Your task to perform on an android device: Add "razer blade" to the cart on bestbuy.com Image 0: 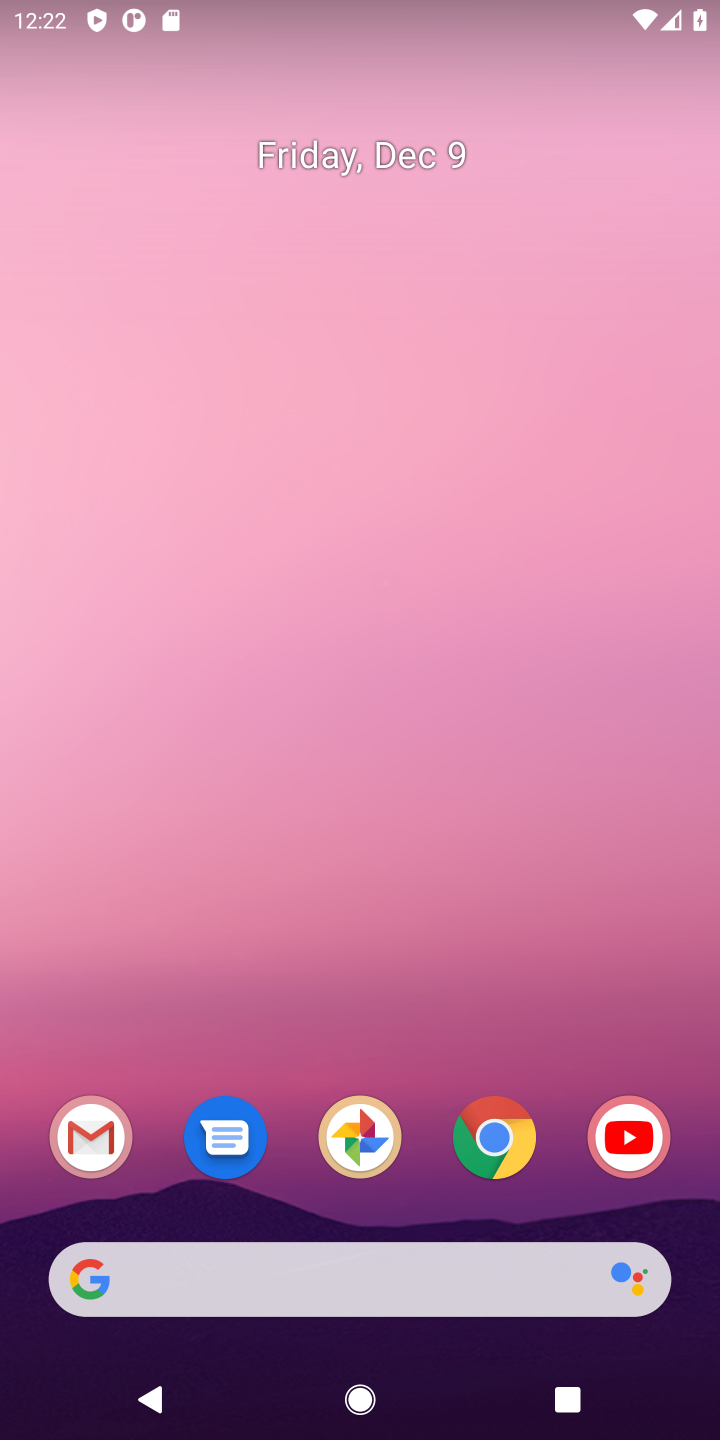
Step 0: click (487, 1125)
Your task to perform on an android device: Add "razer blade" to the cart on bestbuy.com Image 1: 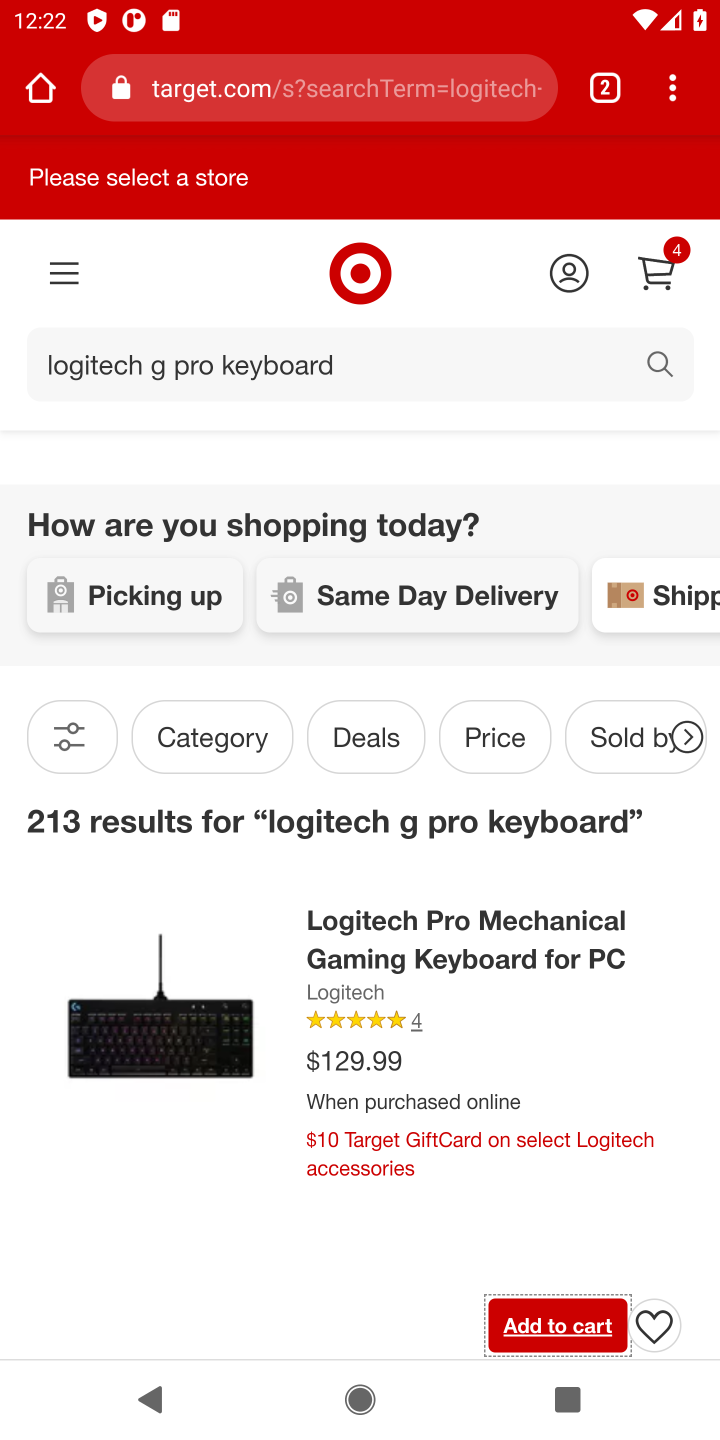
Step 1: click (402, 86)
Your task to perform on an android device: Add "razer blade" to the cart on bestbuy.com Image 2: 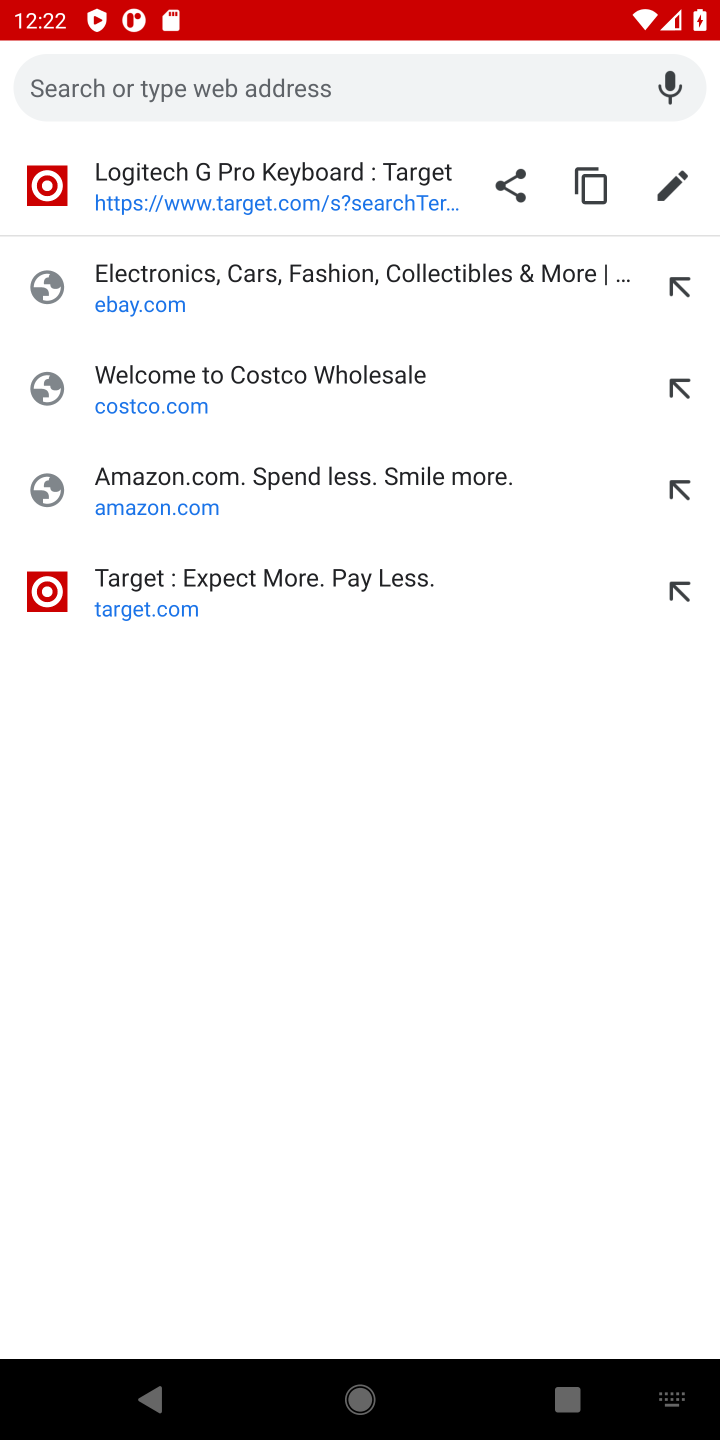
Step 2: type "BESTBUY"
Your task to perform on an android device: Add "razer blade" to the cart on bestbuy.com Image 3: 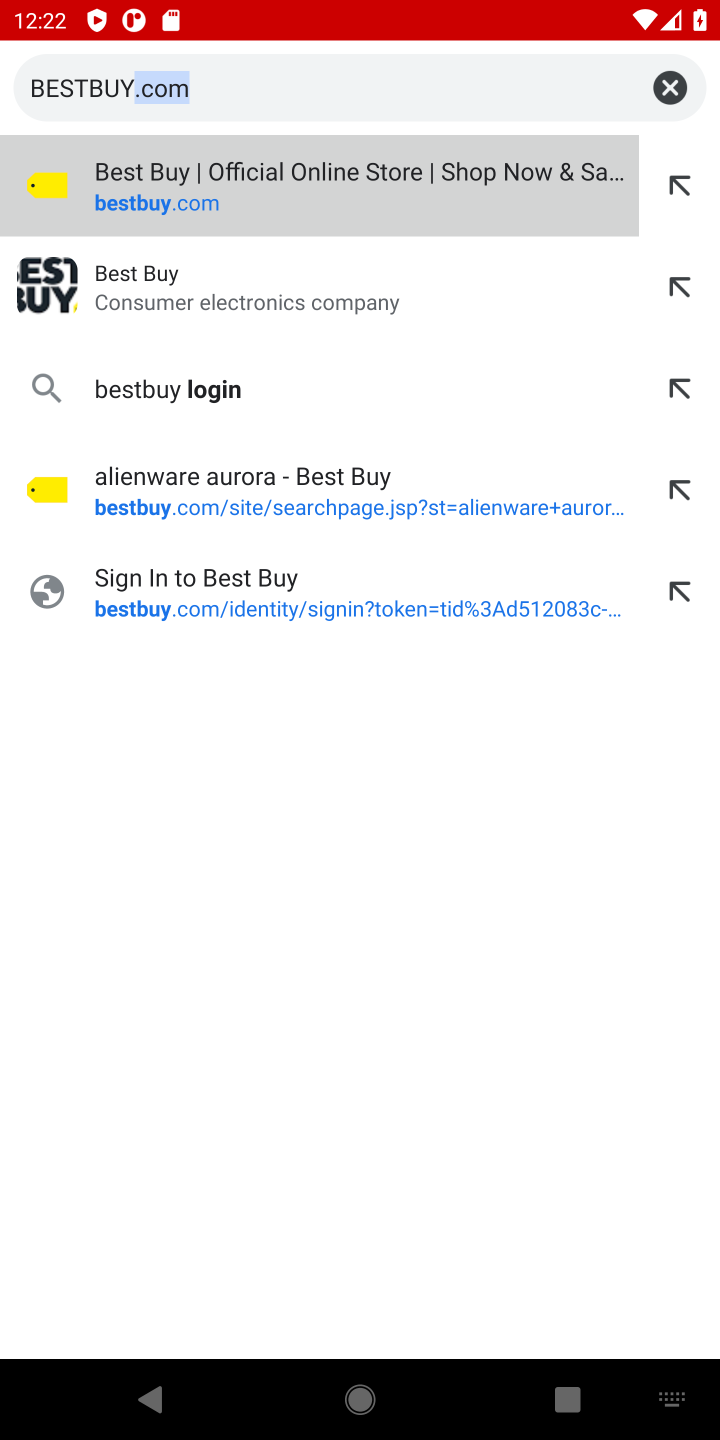
Step 3: click (296, 201)
Your task to perform on an android device: Add "razer blade" to the cart on bestbuy.com Image 4: 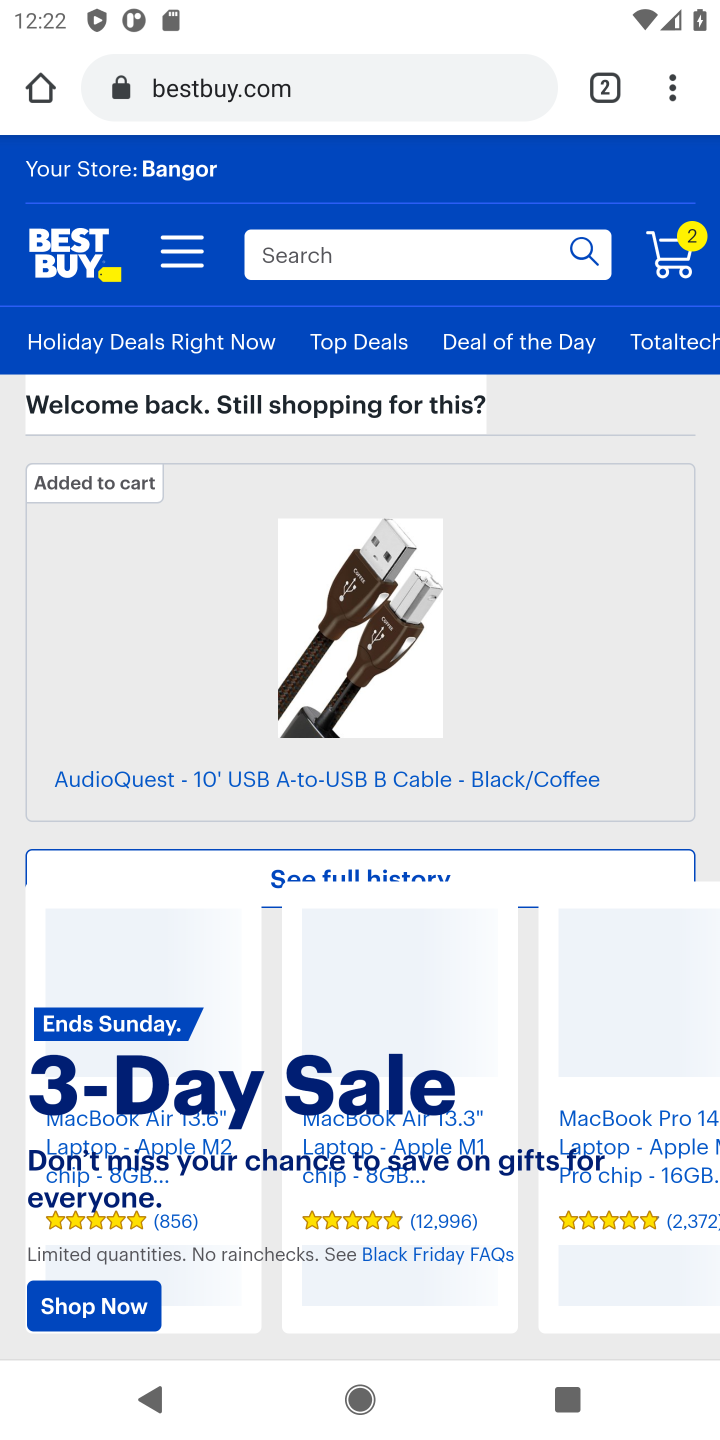
Step 4: click (477, 259)
Your task to perform on an android device: Add "razer blade" to the cart on bestbuy.com Image 5: 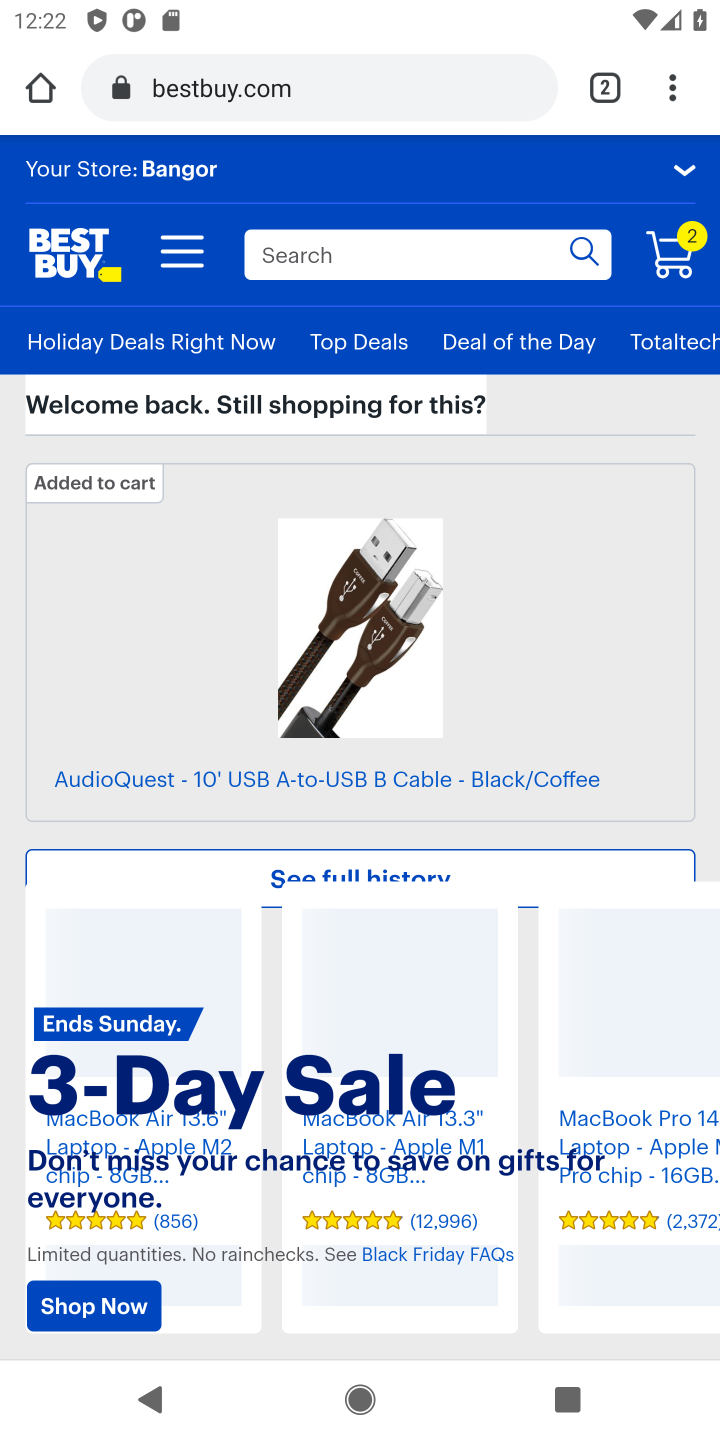
Step 5: type "RAZER BLADE"
Your task to perform on an android device: Add "razer blade" to the cart on bestbuy.com Image 6: 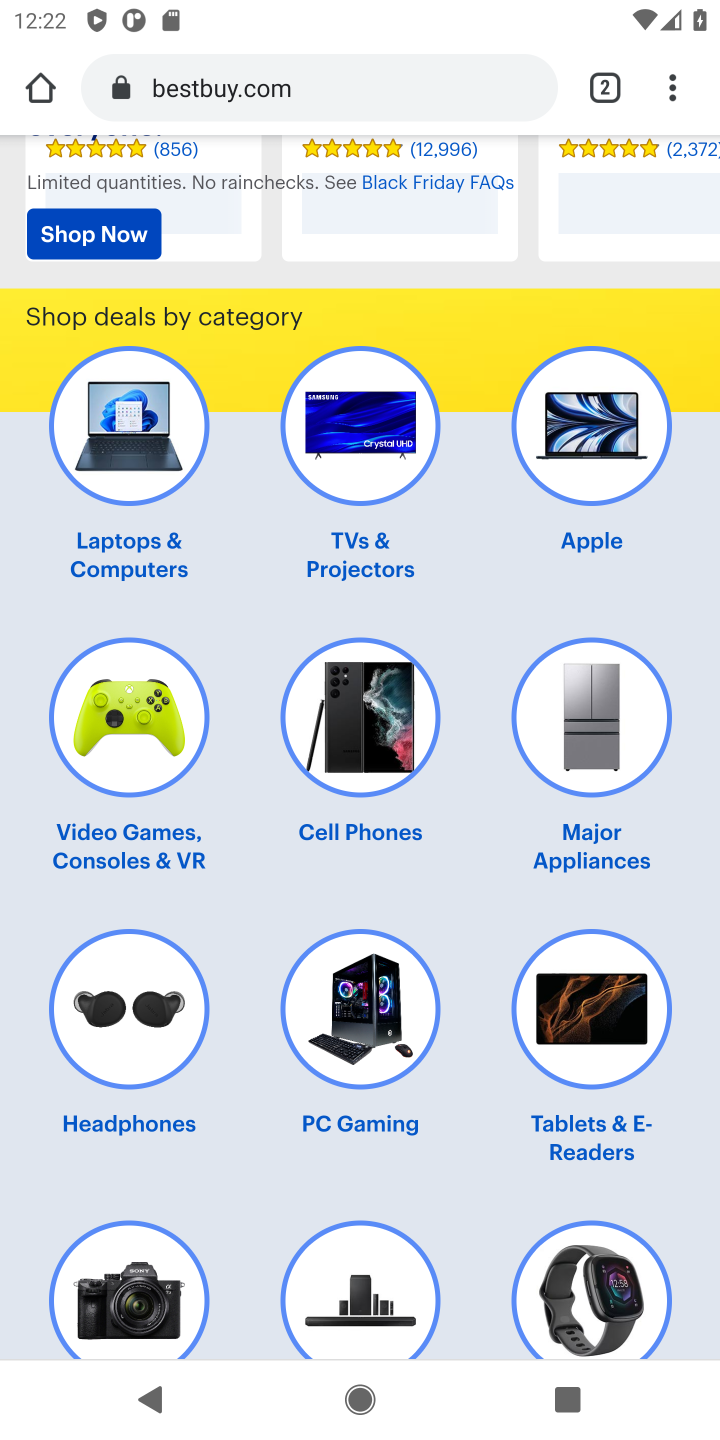
Step 6: drag from (475, 252) to (495, 1240)
Your task to perform on an android device: Add "razer blade" to the cart on bestbuy.com Image 7: 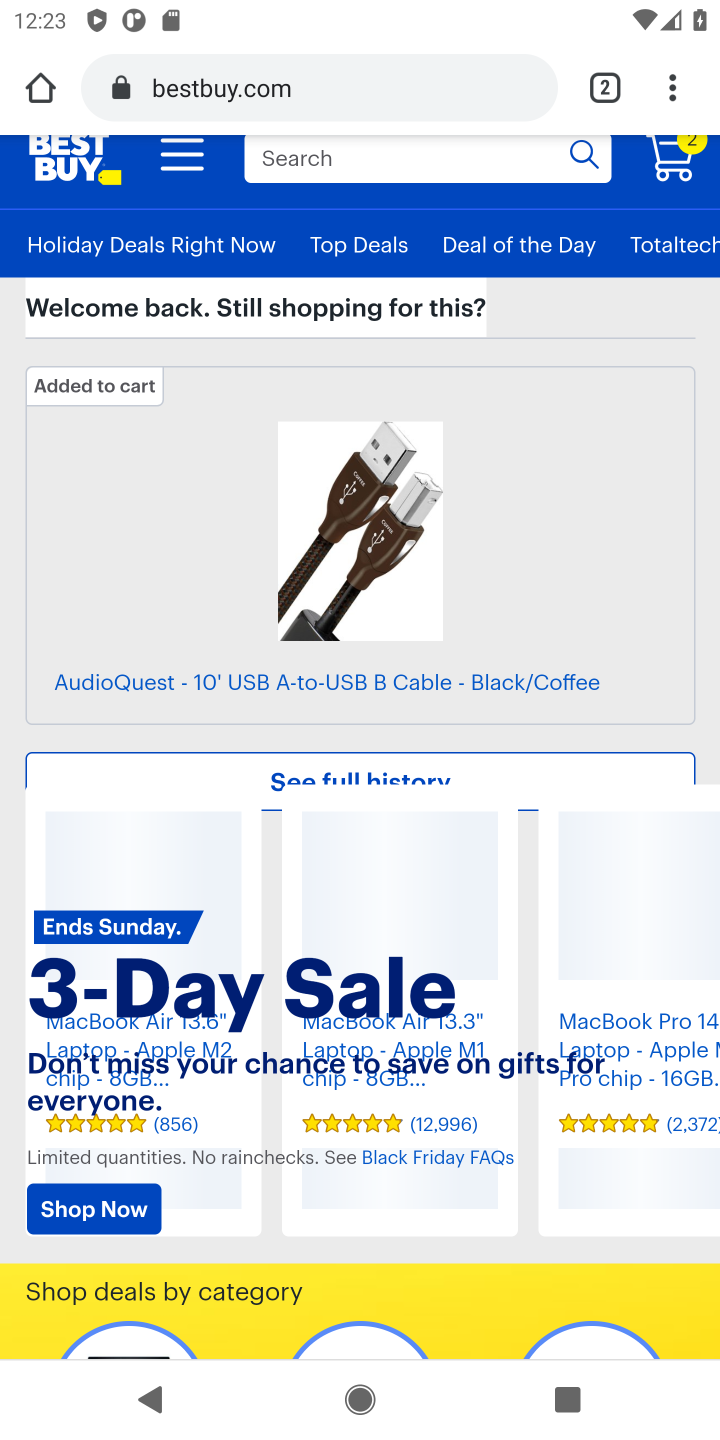
Step 7: click (426, 167)
Your task to perform on an android device: Add "razer blade" to the cart on bestbuy.com Image 8: 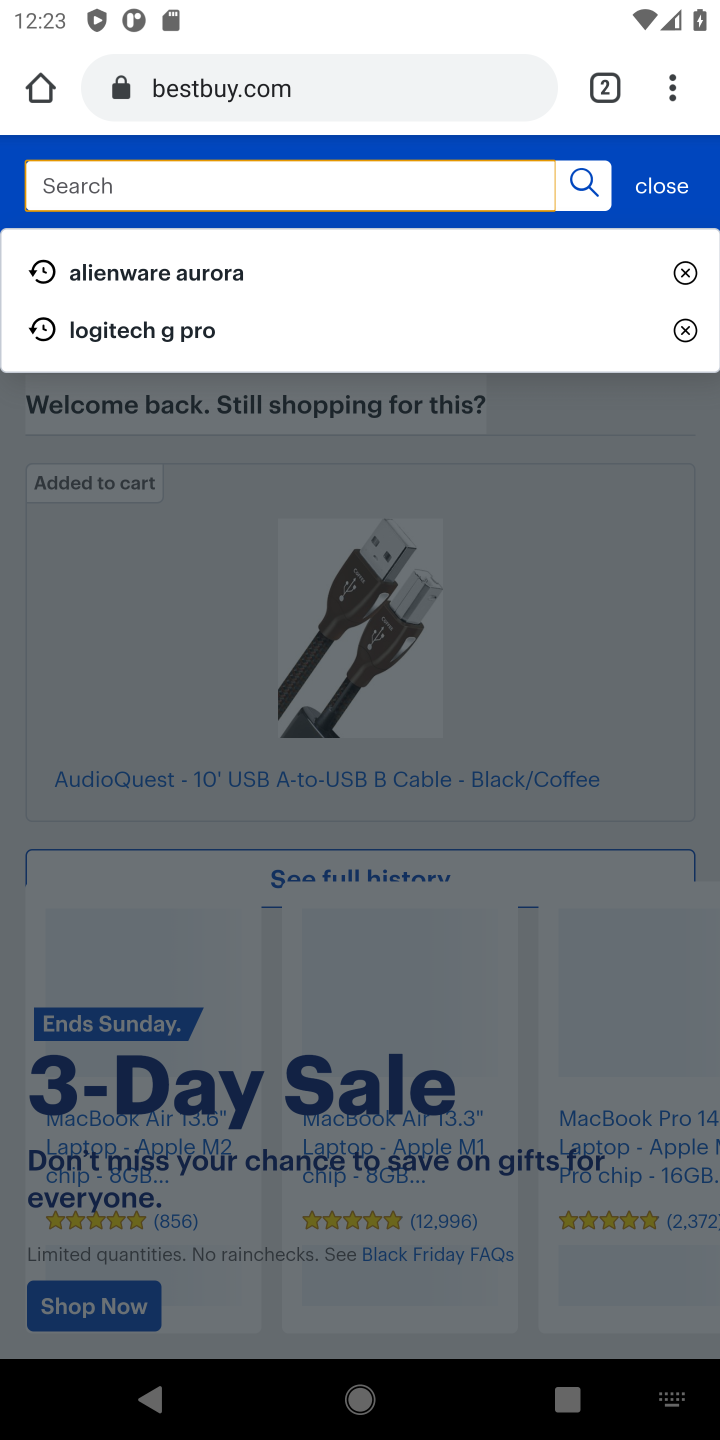
Step 8: type "RAZER BLADE"
Your task to perform on an android device: Add "razer blade" to the cart on bestbuy.com Image 9: 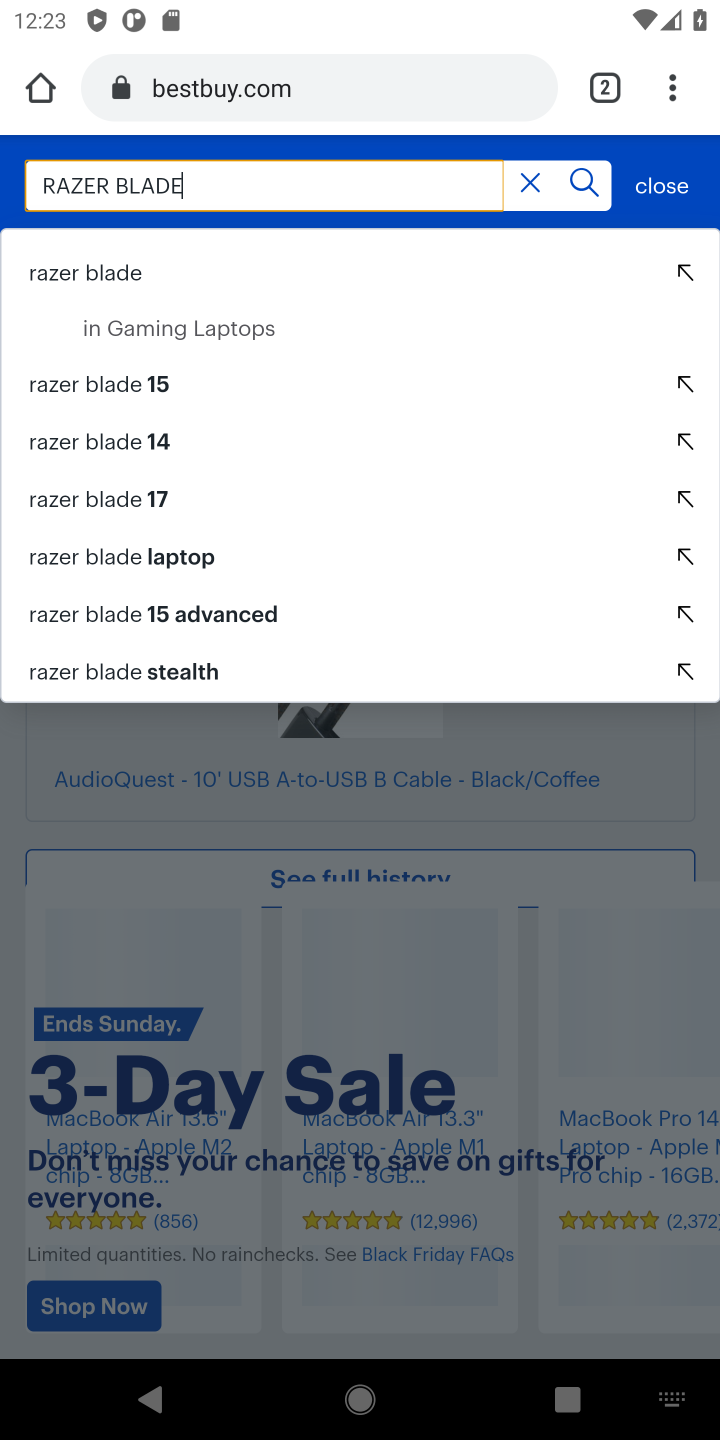
Step 9: click (114, 286)
Your task to perform on an android device: Add "razer blade" to the cart on bestbuy.com Image 10: 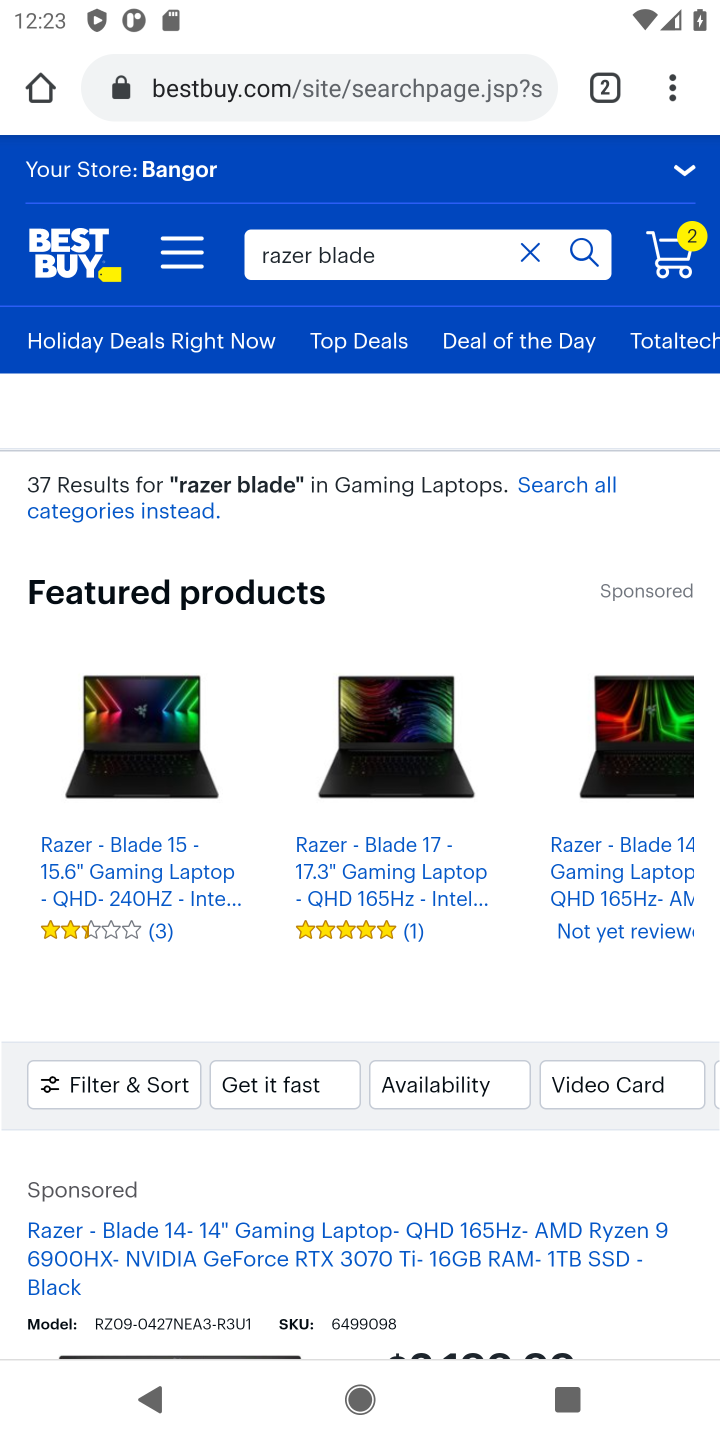
Step 10: drag from (392, 1287) to (308, 401)
Your task to perform on an android device: Add "razer blade" to the cart on bestbuy.com Image 11: 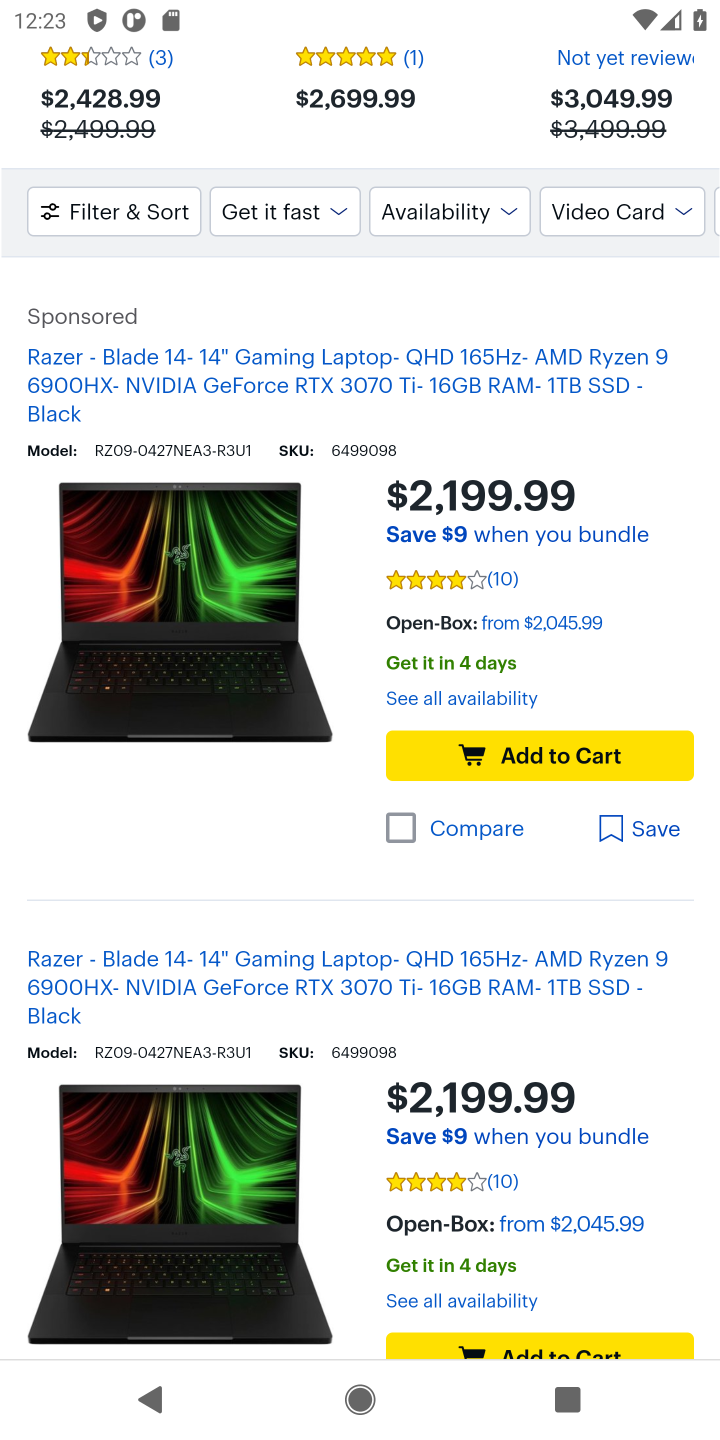
Step 11: click (557, 1256)
Your task to perform on an android device: Add "razer blade" to the cart on bestbuy.com Image 12: 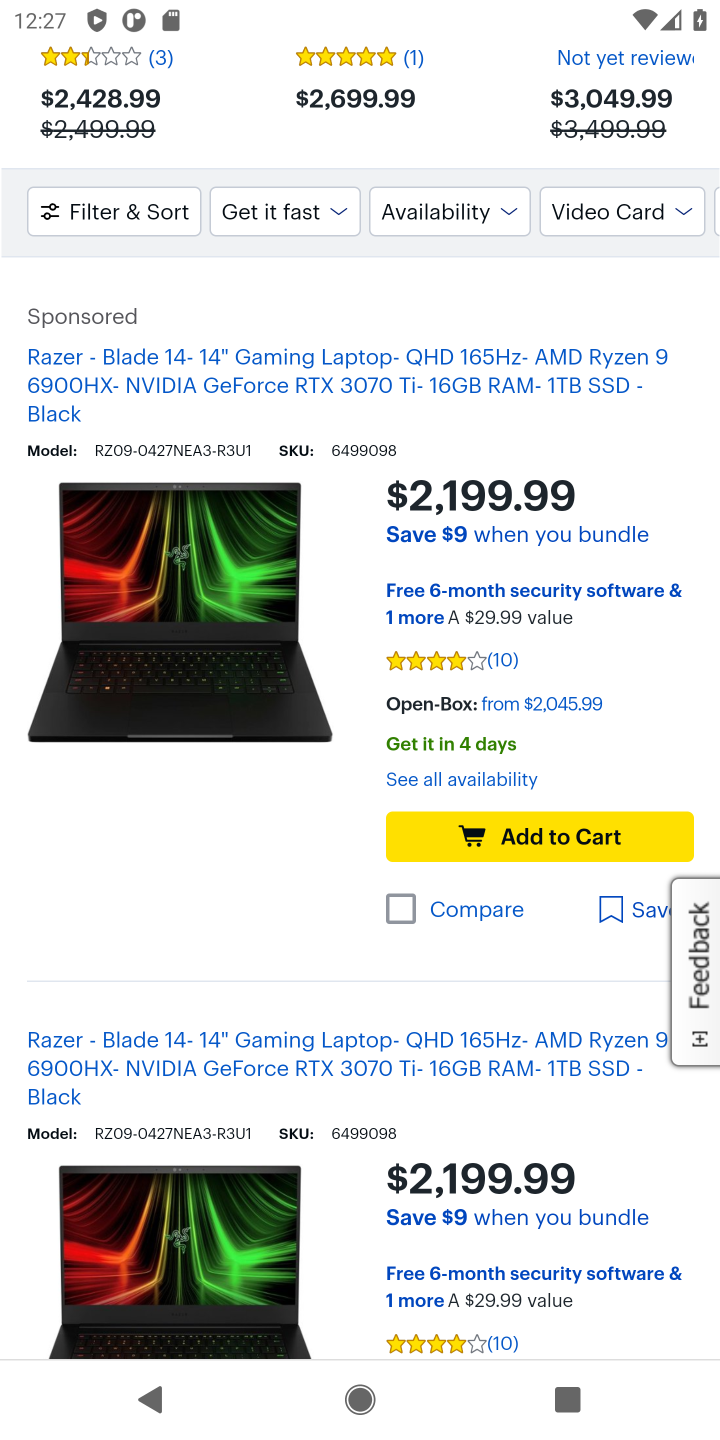
Step 12: task complete